Your task to perform on an android device: see creations saved in the google photos Image 0: 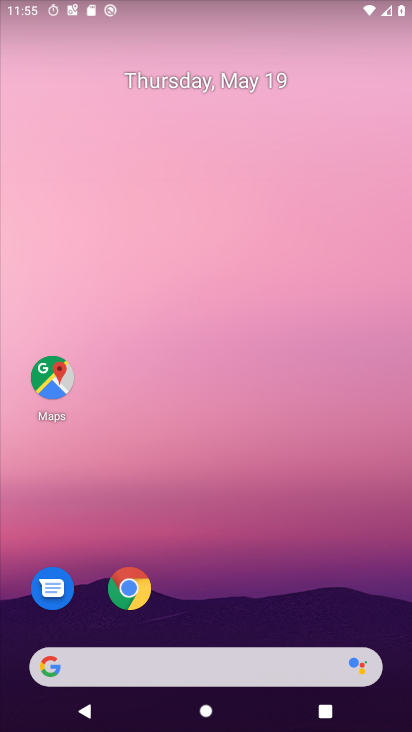
Step 0: press home button
Your task to perform on an android device: see creations saved in the google photos Image 1: 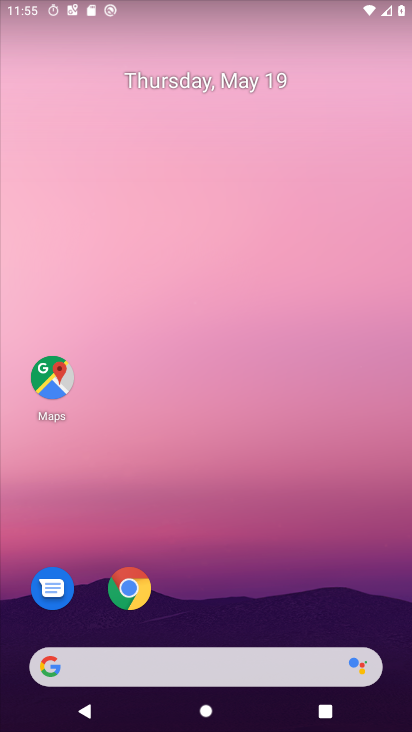
Step 1: drag from (203, 670) to (317, 242)
Your task to perform on an android device: see creations saved in the google photos Image 2: 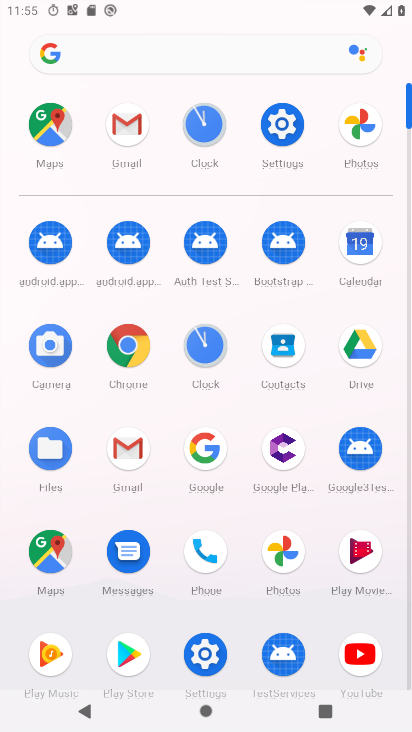
Step 2: click (278, 547)
Your task to perform on an android device: see creations saved in the google photos Image 3: 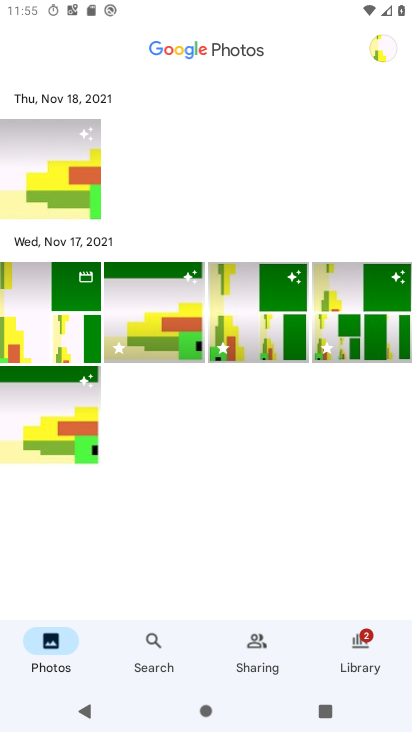
Step 3: click (152, 663)
Your task to perform on an android device: see creations saved in the google photos Image 4: 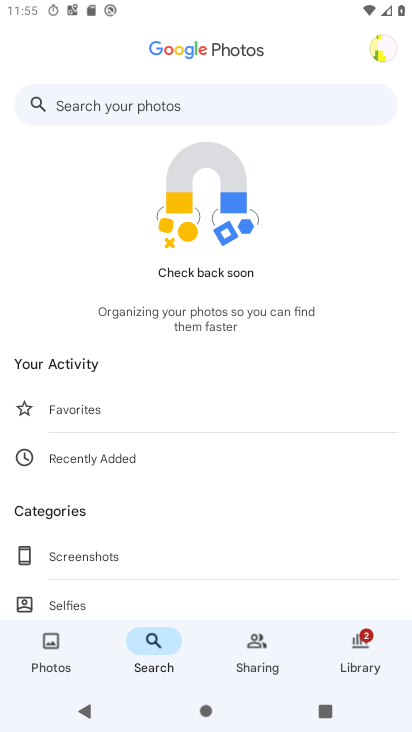
Step 4: drag from (201, 569) to (324, 143)
Your task to perform on an android device: see creations saved in the google photos Image 5: 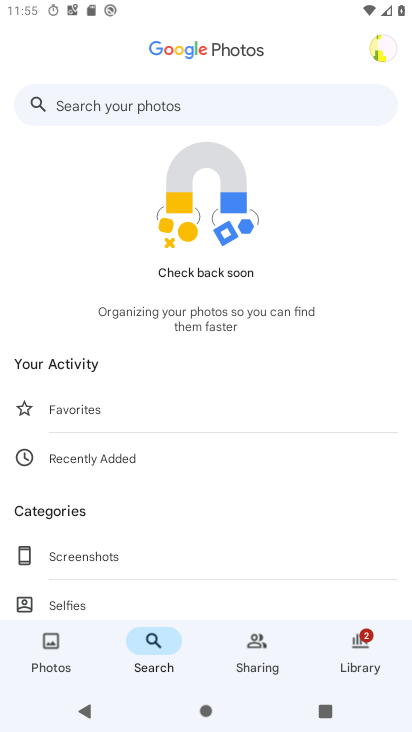
Step 5: drag from (130, 553) to (296, 215)
Your task to perform on an android device: see creations saved in the google photos Image 6: 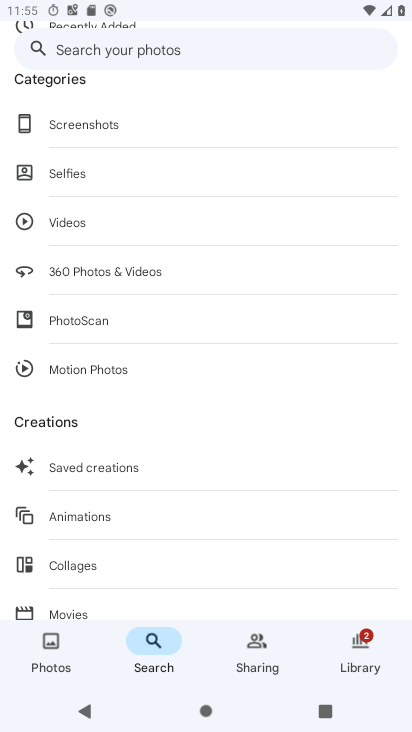
Step 6: click (109, 466)
Your task to perform on an android device: see creations saved in the google photos Image 7: 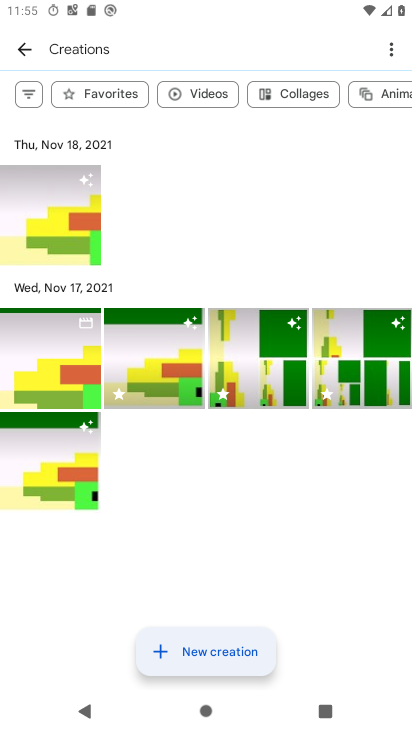
Step 7: task complete